Your task to perform on an android device: Open ESPN.com Image 0: 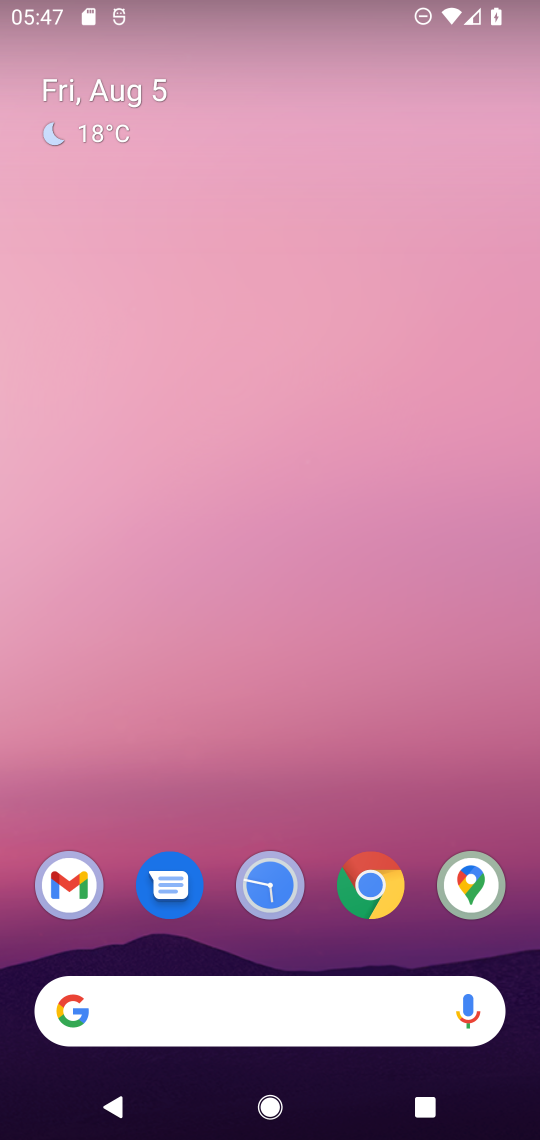
Step 0: click (364, 885)
Your task to perform on an android device: Open ESPN.com Image 1: 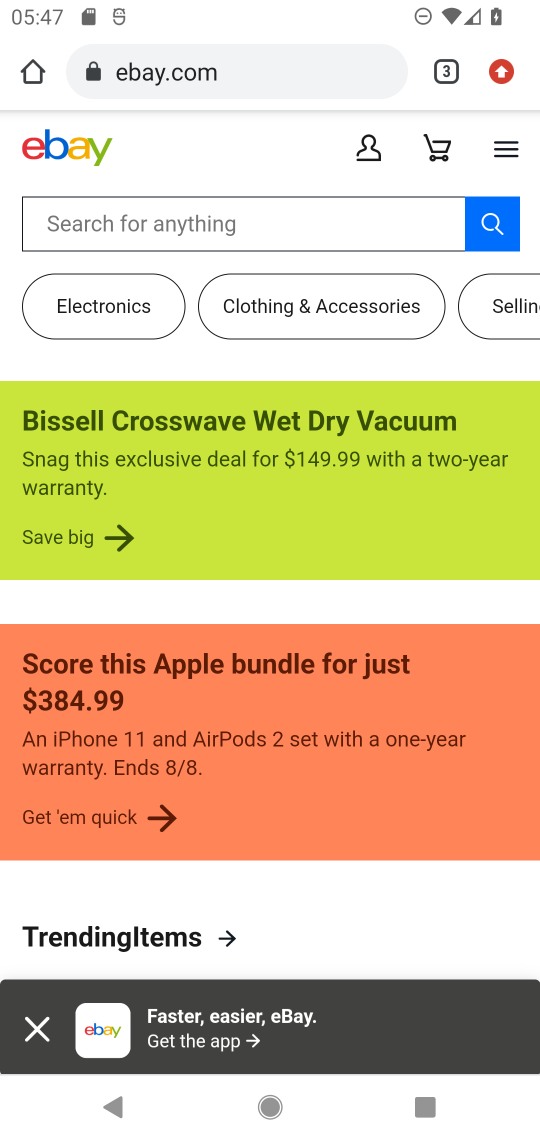
Step 1: click (502, 81)
Your task to perform on an android device: Open ESPN.com Image 2: 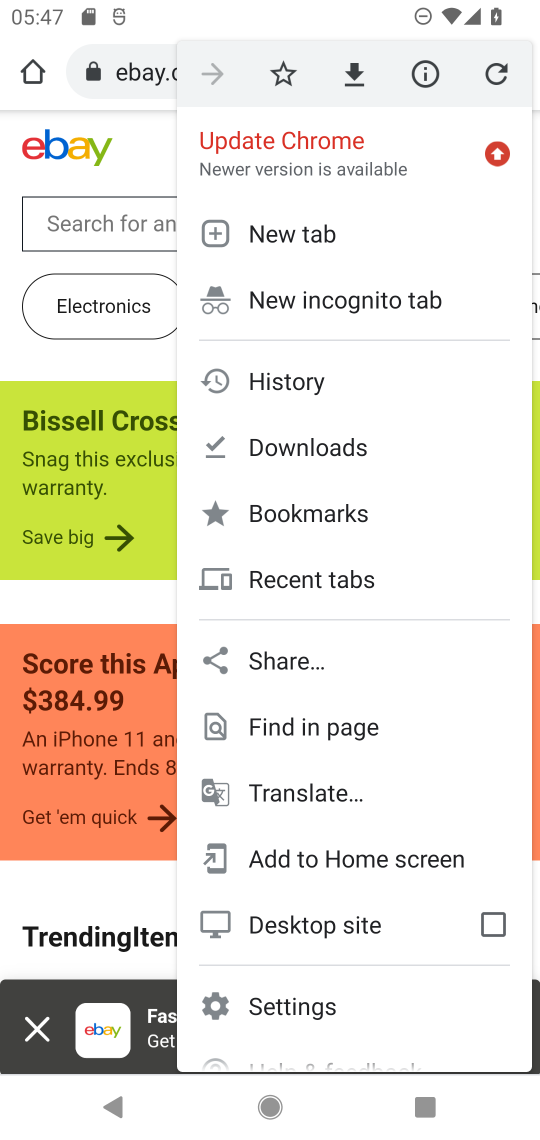
Step 2: click (289, 238)
Your task to perform on an android device: Open ESPN.com Image 3: 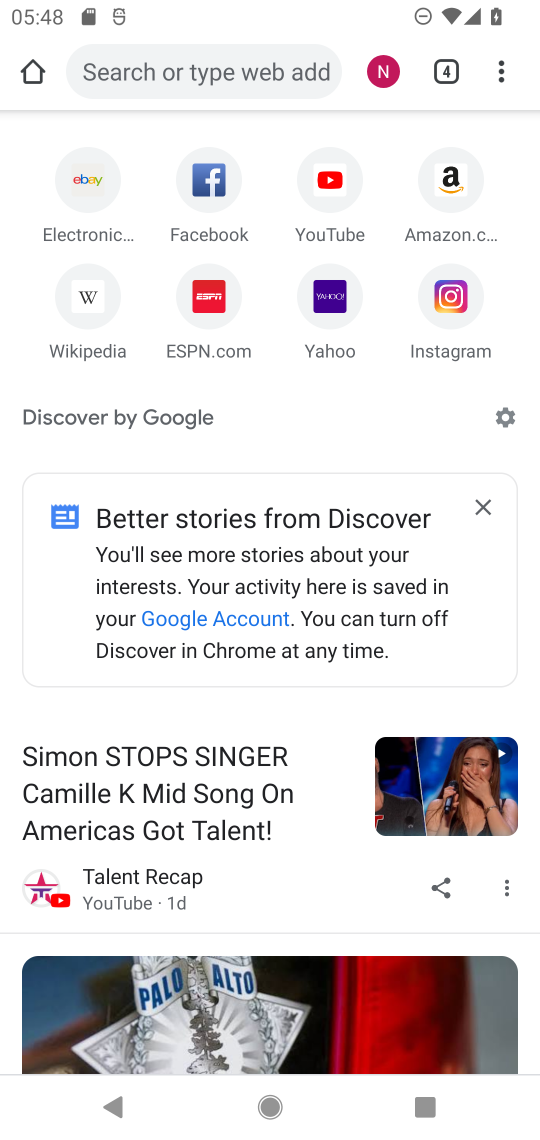
Step 3: click (213, 302)
Your task to perform on an android device: Open ESPN.com Image 4: 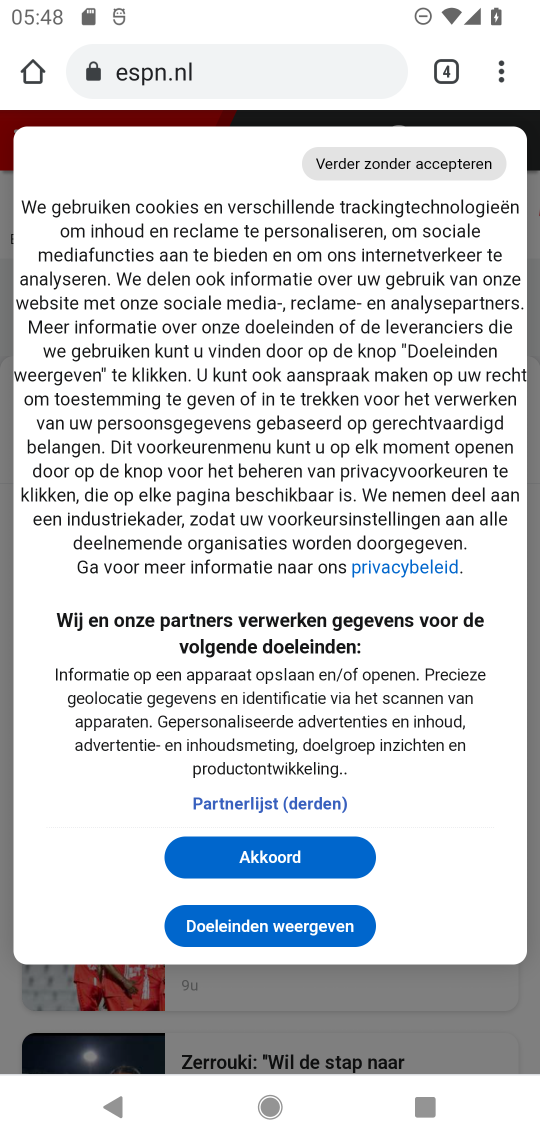
Step 4: click (285, 849)
Your task to perform on an android device: Open ESPN.com Image 5: 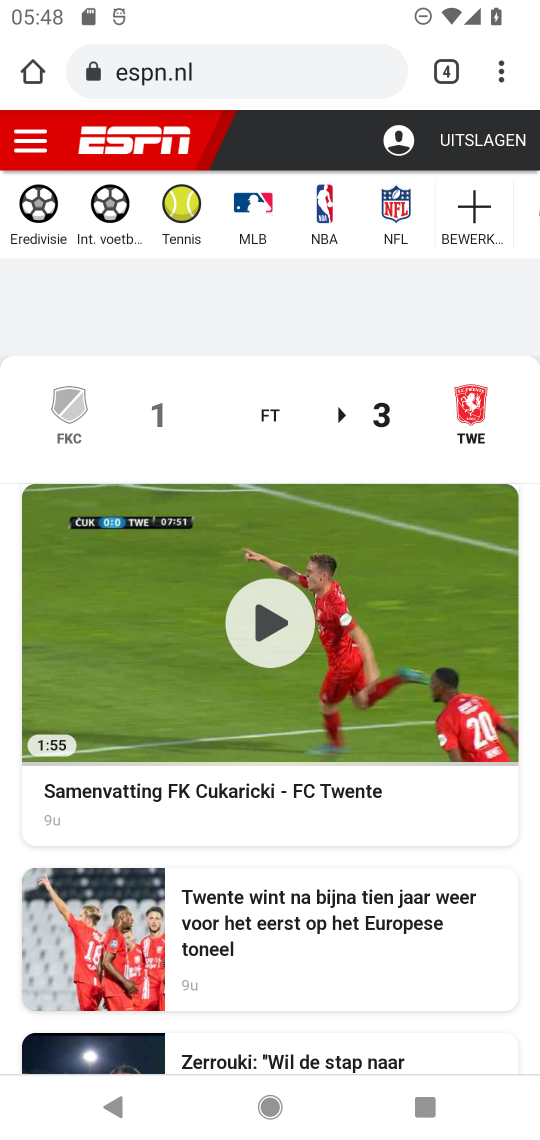
Step 5: task complete